Your task to perform on an android device: Toggle the flashlight Image 0: 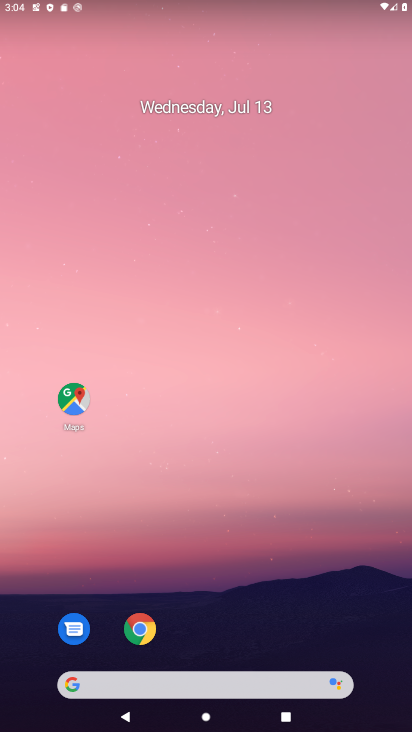
Step 0: drag from (260, 608) to (197, 93)
Your task to perform on an android device: Toggle the flashlight Image 1: 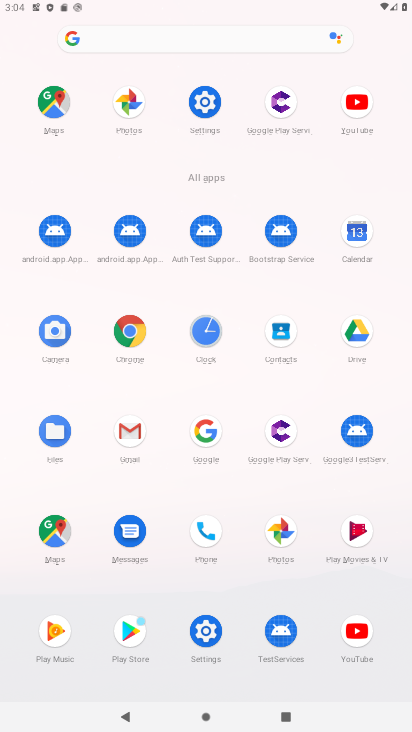
Step 1: drag from (288, 4) to (299, 394)
Your task to perform on an android device: Toggle the flashlight Image 2: 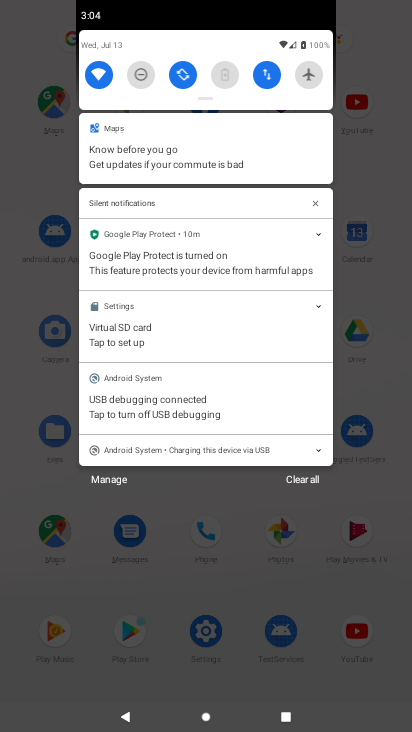
Step 2: drag from (247, 90) to (256, 395)
Your task to perform on an android device: Toggle the flashlight Image 3: 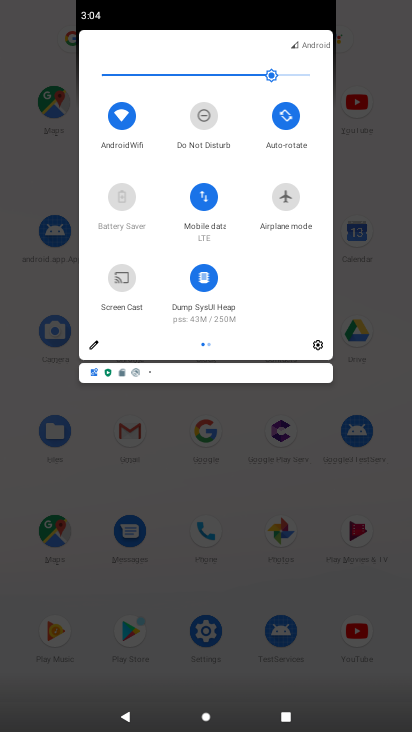
Step 3: click (92, 344)
Your task to perform on an android device: Toggle the flashlight Image 4: 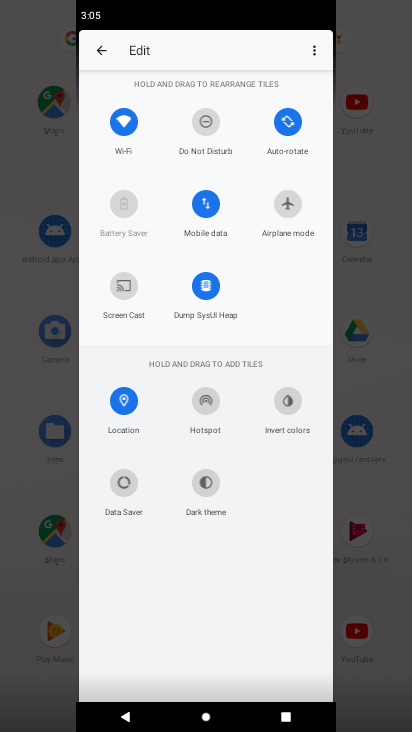
Step 4: task complete